Your task to perform on an android device: What's the weather going to be tomorrow? Image 0: 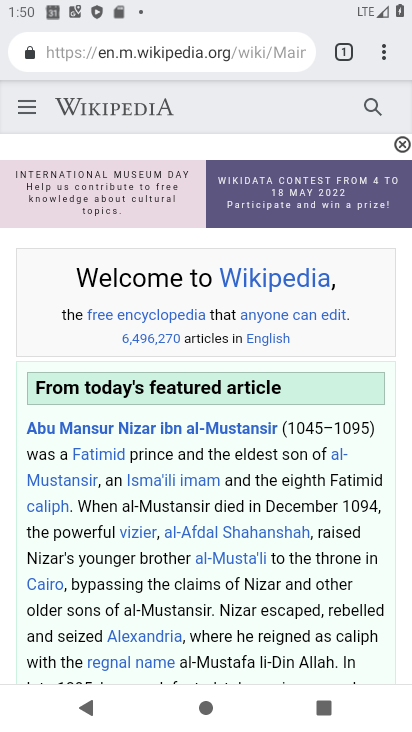
Step 0: press home button
Your task to perform on an android device: What's the weather going to be tomorrow? Image 1: 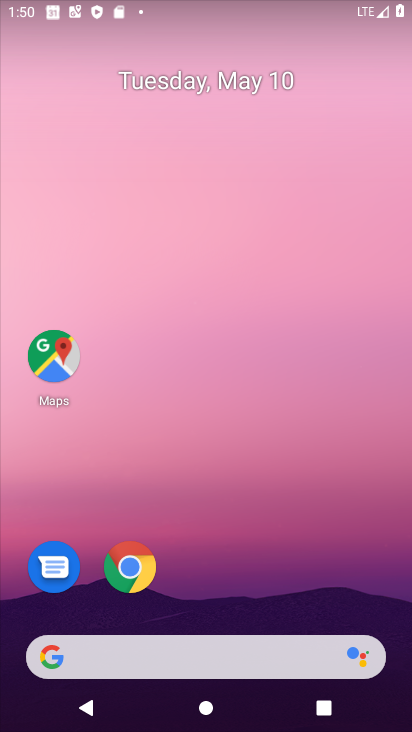
Step 1: drag from (391, 637) to (316, 109)
Your task to perform on an android device: What's the weather going to be tomorrow? Image 2: 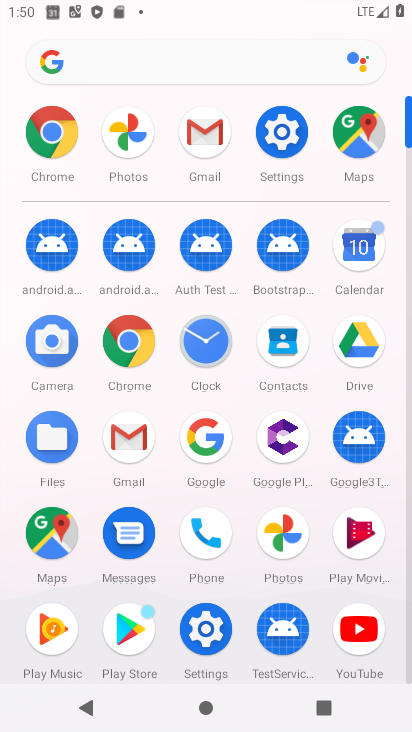
Step 2: click (202, 441)
Your task to perform on an android device: What's the weather going to be tomorrow? Image 3: 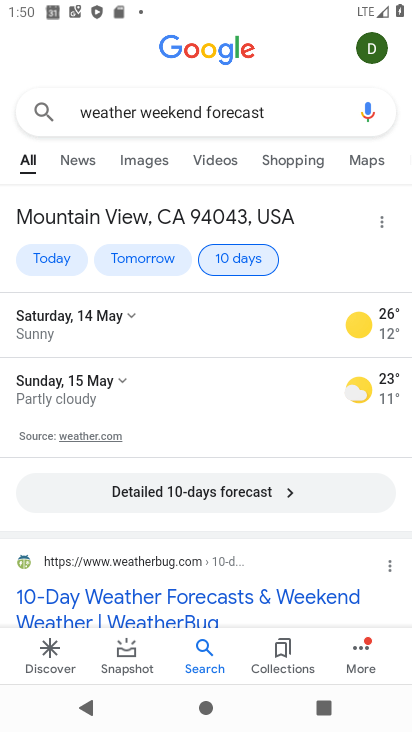
Step 3: press back button
Your task to perform on an android device: What's the weather going to be tomorrow? Image 4: 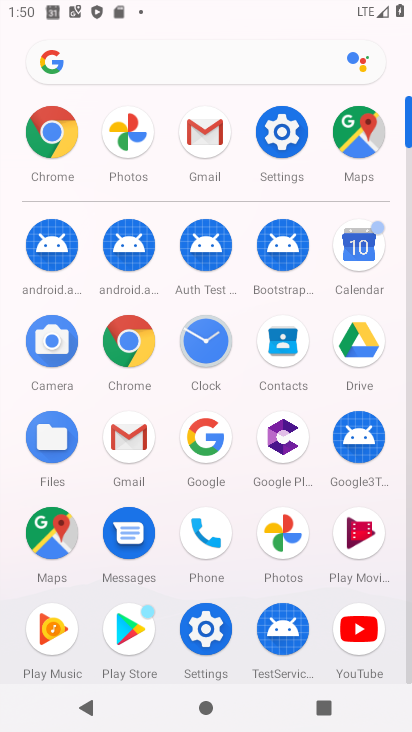
Step 4: click (198, 440)
Your task to perform on an android device: What's the weather going to be tomorrow? Image 5: 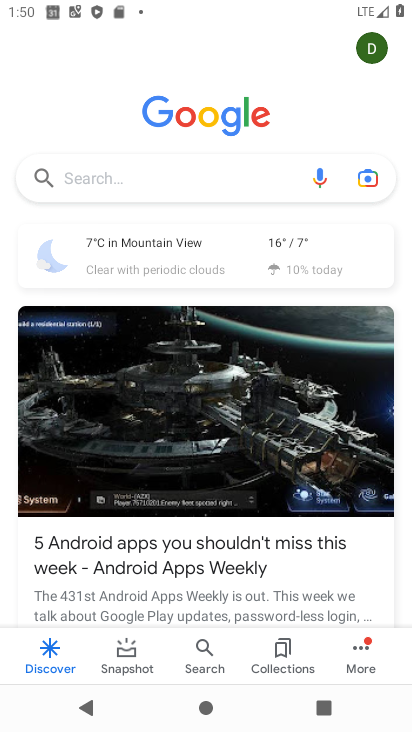
Step 5: click (181, 176)
Your task to perform on an android device: What's the weather going to be tomorrow? Image 6: 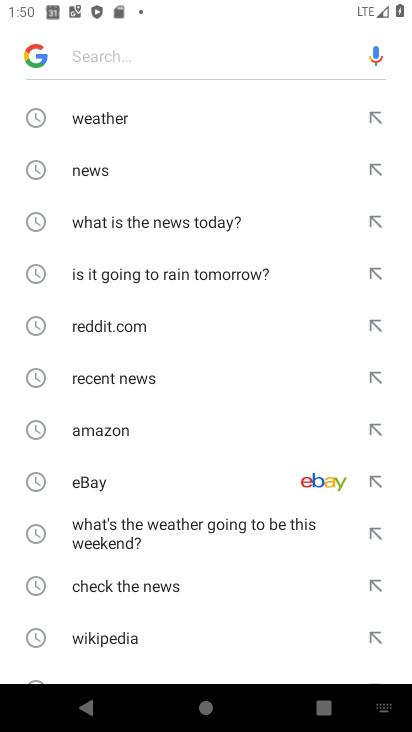
Step 6: click (262, 265)
Your task to perform on an android device: What's the weather going to be tomorrow? Image 7: 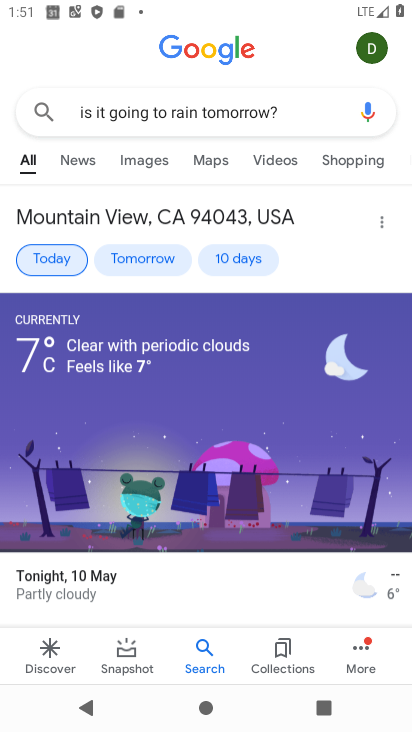
Step 7: task complete